Your task to perform on an android device: Open calendar and show me the fourth week of next month Image 0: 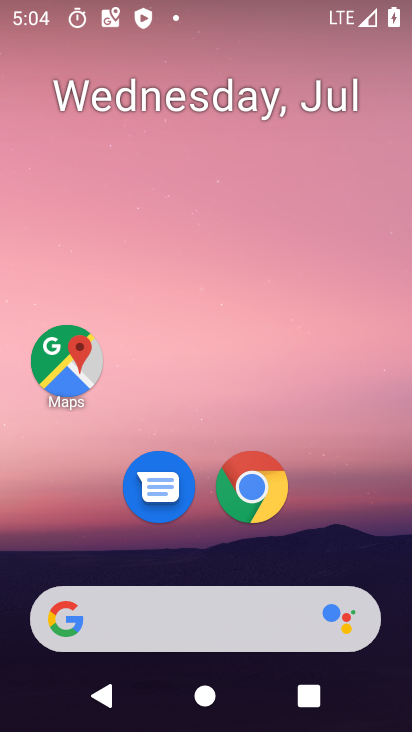
Step 0: drag from (170, 541) to (246, 4)
Your task to perform on an android device: Open calendar and show me the fourth week of next month Image 1: 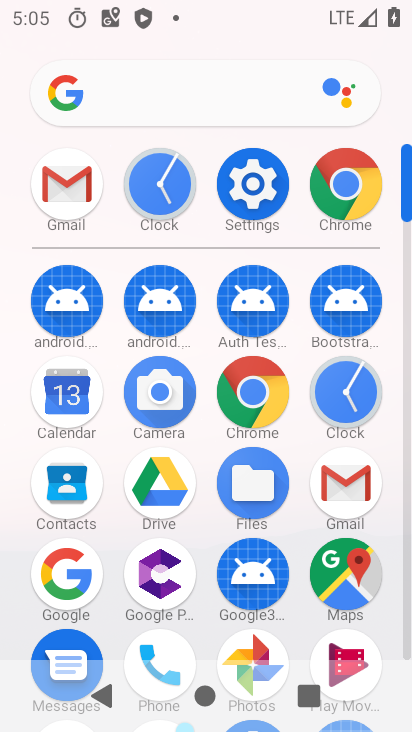
Step 1: click (73, 405)
Your task to perform on an android device: Open calendar and show me the fourth week of next month Image 2: 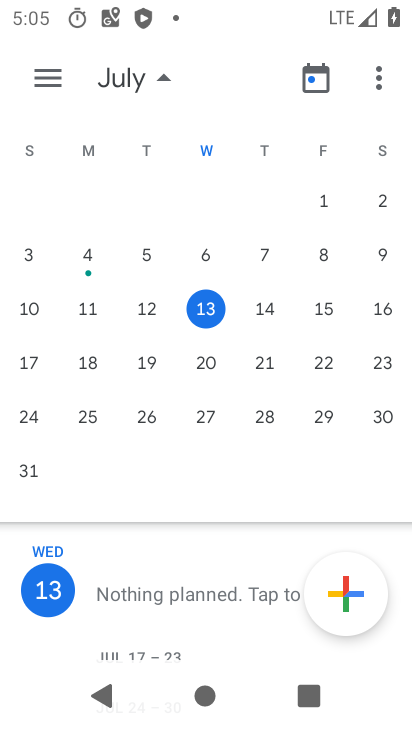
Step 2: drag from (361, 337) to (0, 371)
Your task to perform on an android device: Open calendar and show me the fourth week of next month Image 3: 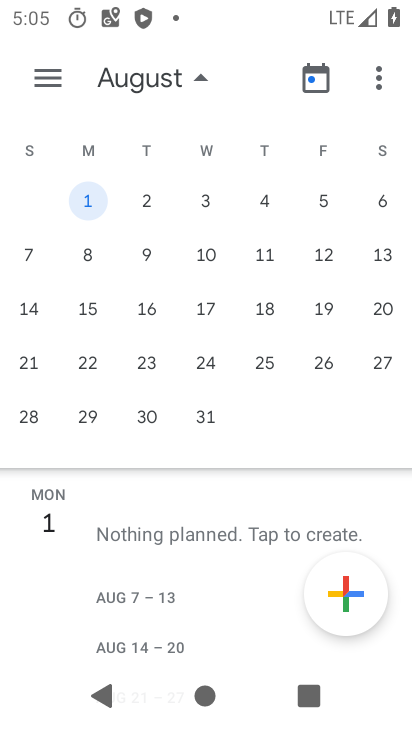
Step 3: click (79, 368)
Your task to perform on an android device: Open calendar and show me the fourth week of next month Image 4: 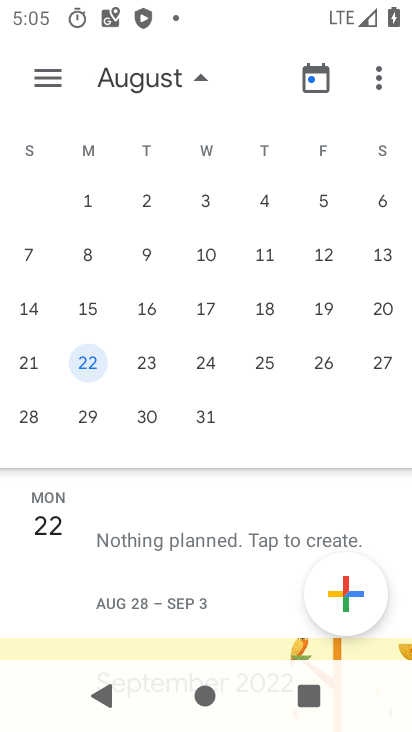
Step 4: task complete